Your task to perform on an android device: open chrome and create a bookmark for the current page Image 0: 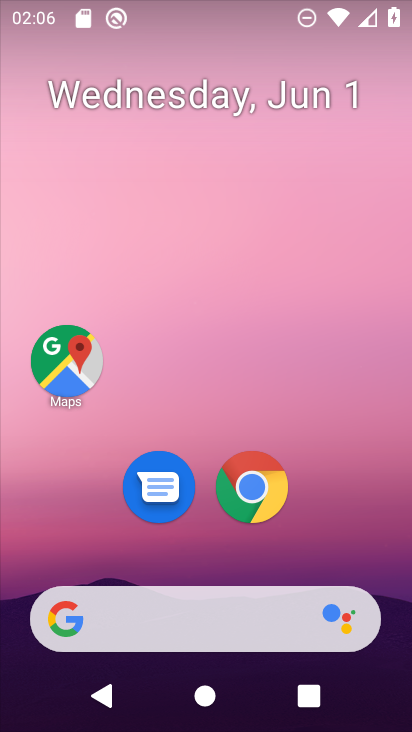
Step 0: click (233, 497)
Your task to perform on an android device: open chrome and create a bookmark for the current page Image 1: 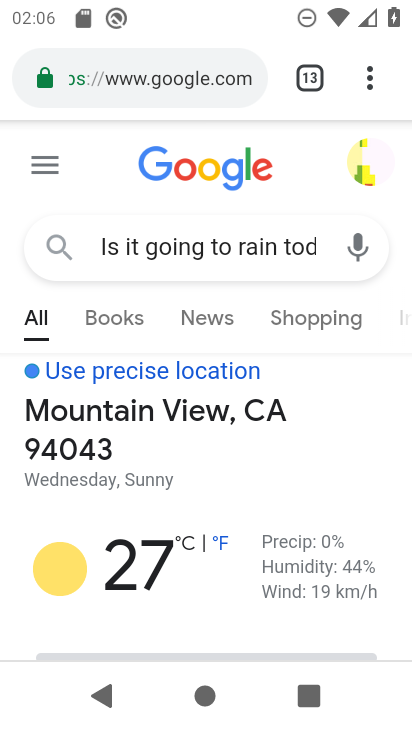
Step 1: click (355, 66)
Your task to perform on an android device: open chrome and create a bookmark for the current page Image 2: 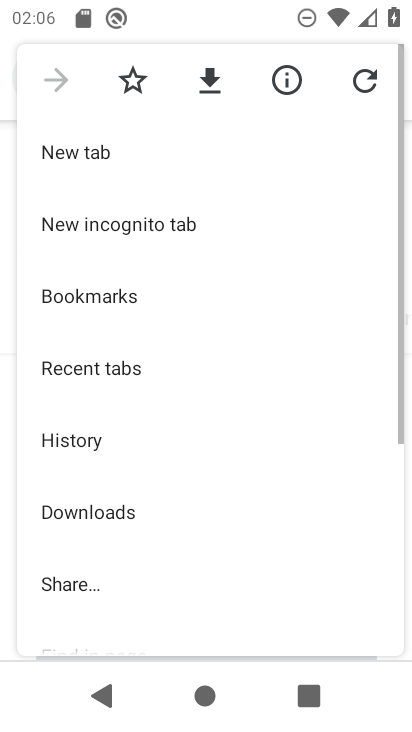
Step 2: click (123, 69)
Your task to perform on an android device: open chrome and create a bookmark for the current page Image 3: 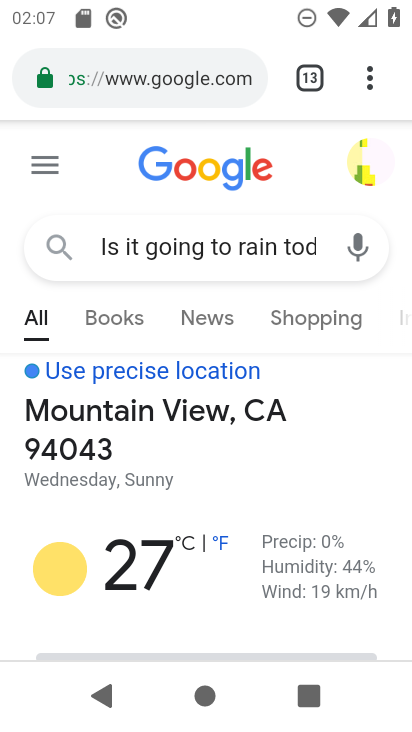
Step 3: task complete